Your task to perform on an android device: change alarm snooze length Image 0: 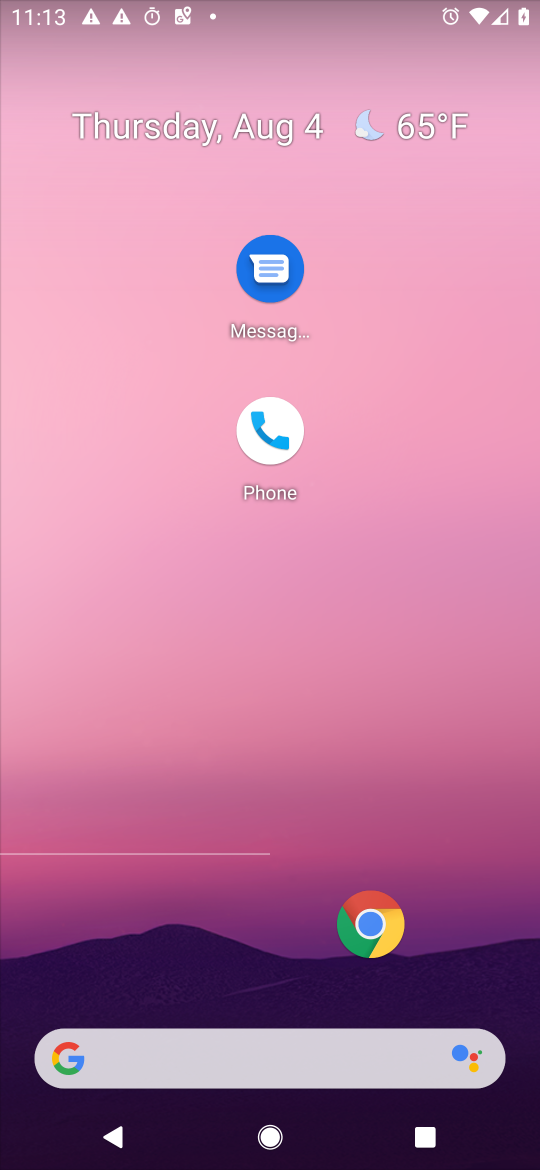
Step 0: drag from (302, 730) to (385, 219)
Your task to perform on an android device: change alarm snooze length Image 1: 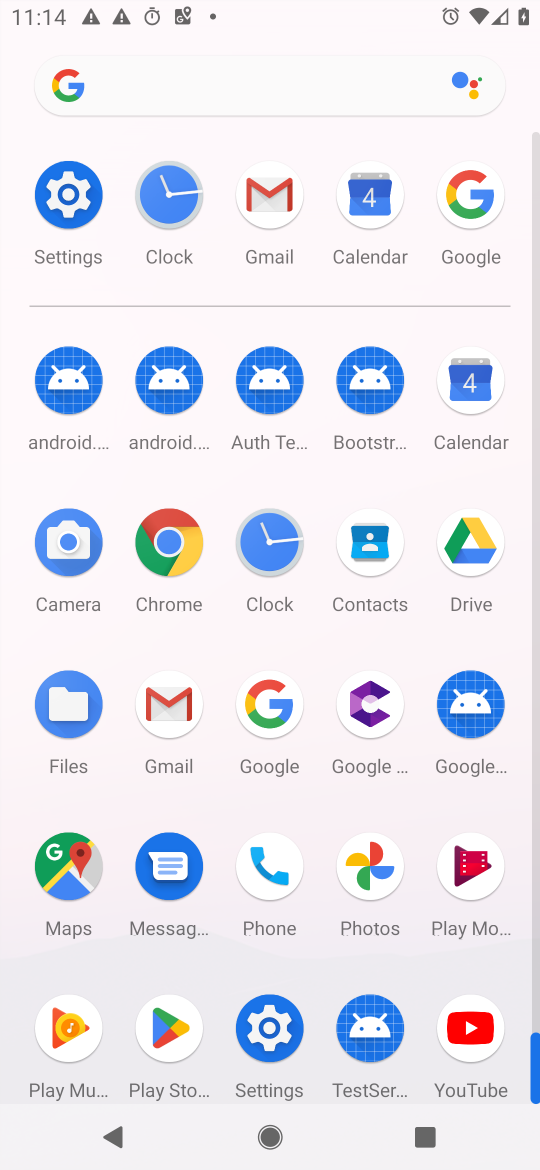
Step 1: click (269, 545)
Your task to perform on an android device: change alarm snooze length Image 2: 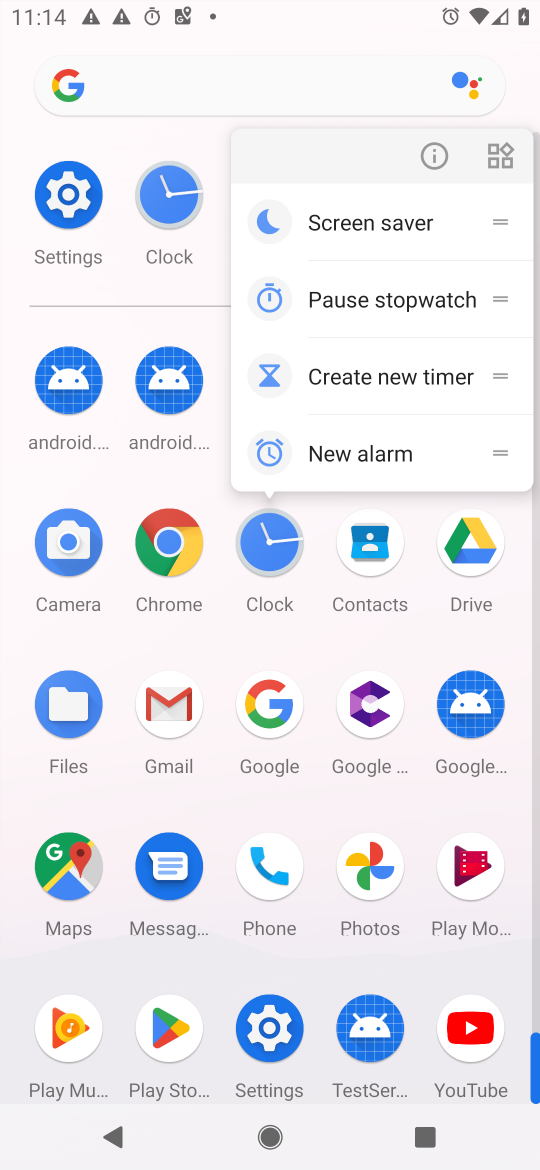
Step 2: click (438, 141)
Your task to perform on an android device: change alarm snooze length Image 3: 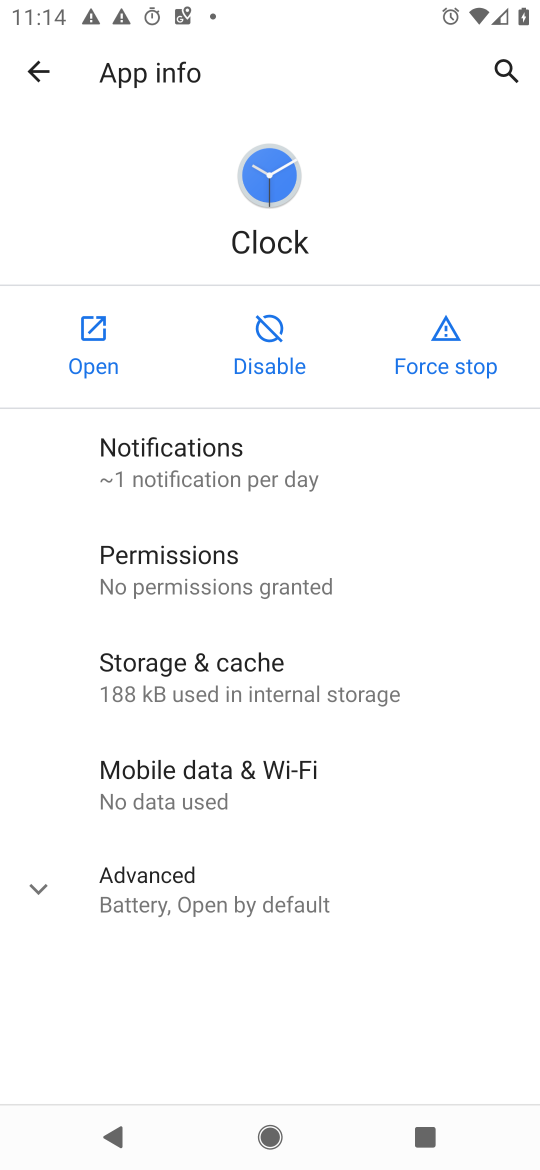
Step 3: click (81, 332)
Your task to perform on an android device: change alarm snooze length Image 4: 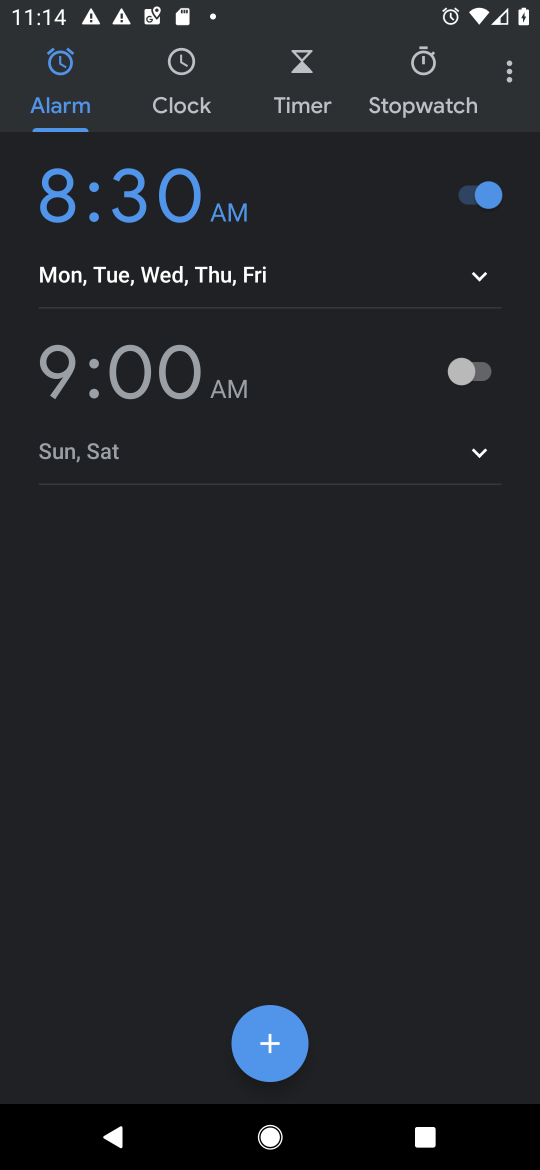
Step 4: drag from (506, 68) to (380, 153)
Your task to perform on an android device: change alarm snooze length Image 5: 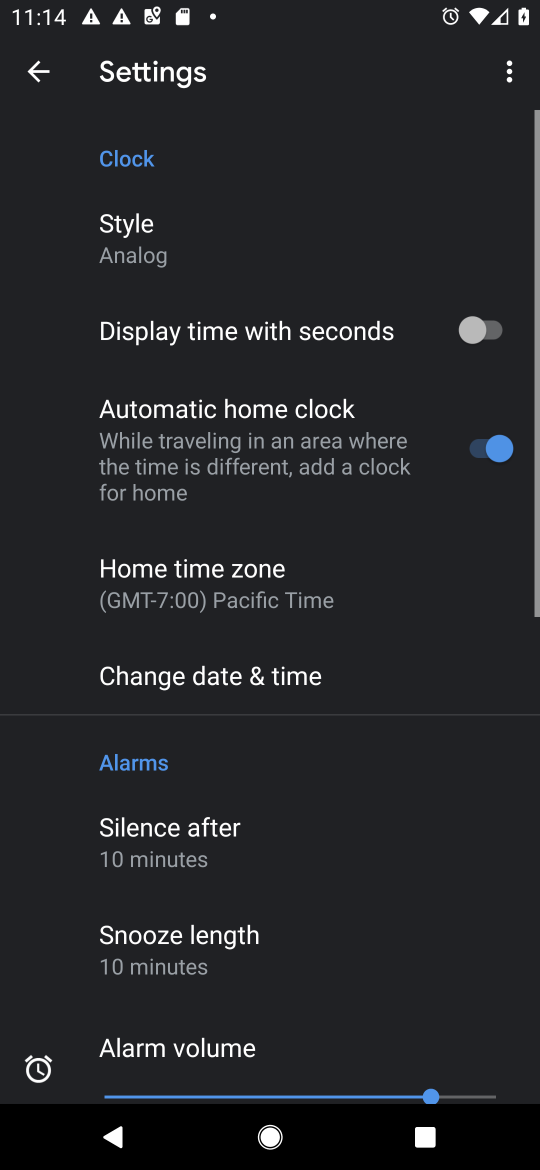
Step 5: drag from (217, 870) to (334, 317)
Your task to perform on an android device: change alarm snooze length Image 6: 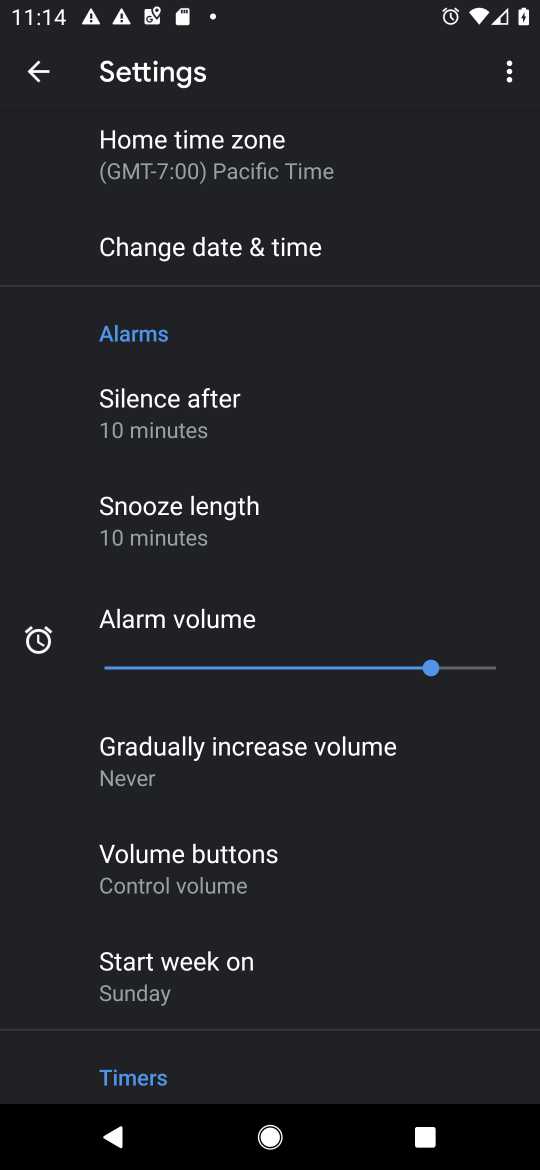
Step 6: click (209, 513)
Your task to perform on an android device: change alarm snooze length Image 7: 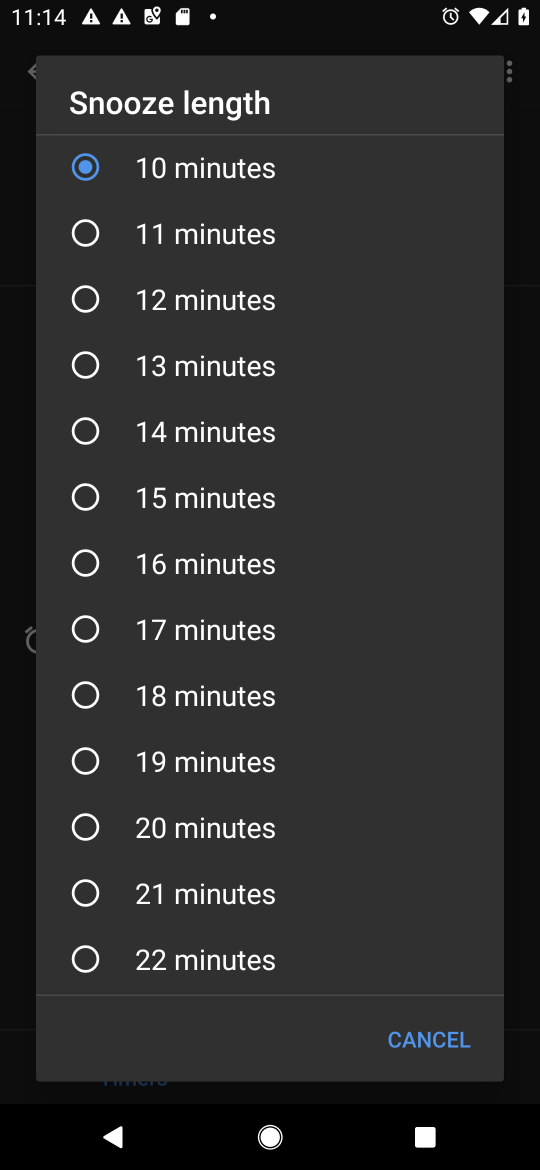
Step 7: drag from (191, 837) to (238, 264)
Your task to perform on an android device: change alarm snooze length Image 8: 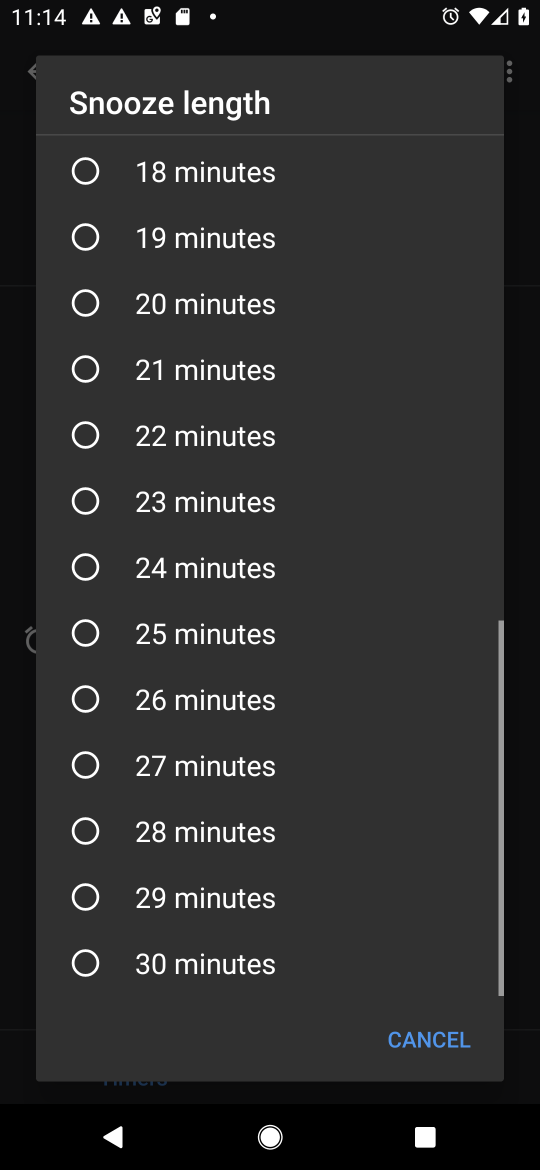
Step 8: drag from (240, 258) to (259, 1157)
Your task to perform on an android device: change alarm snooze length Image 9: 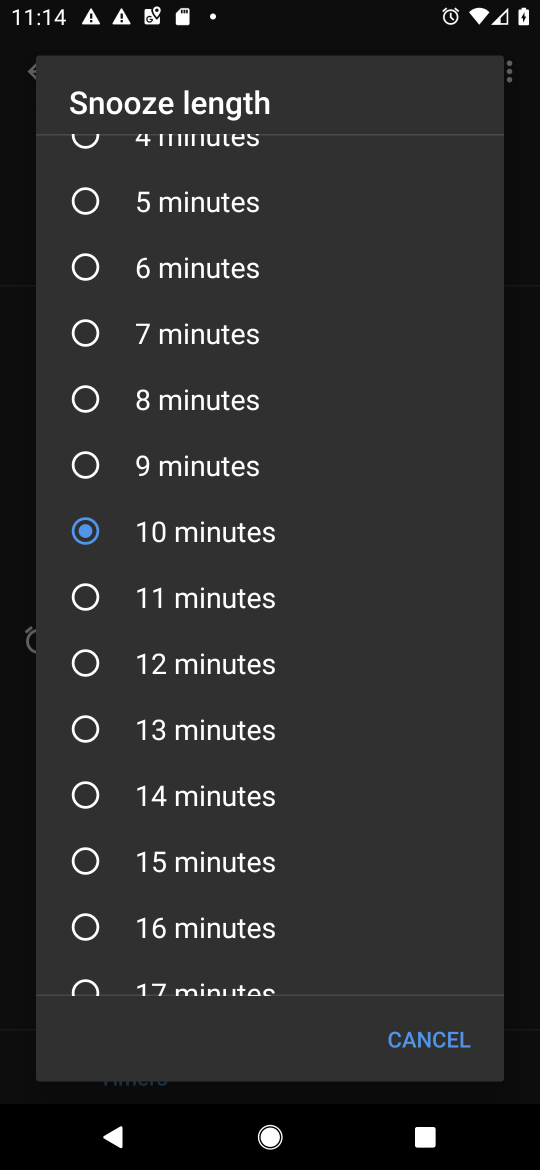
Step 9: drag from (245, 401) to (259, 1161)
Your task to perform on an android device: change alarm snooze length Image 10: 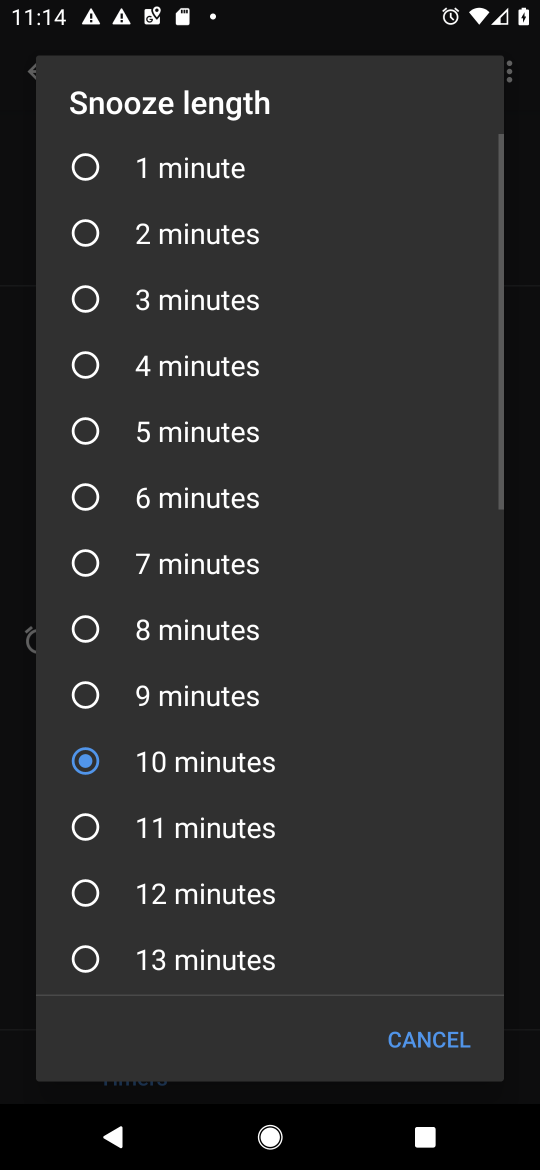
Step 10: click (97, 161)
Your task to perform on an android device: change alarm snooze length Image 11: 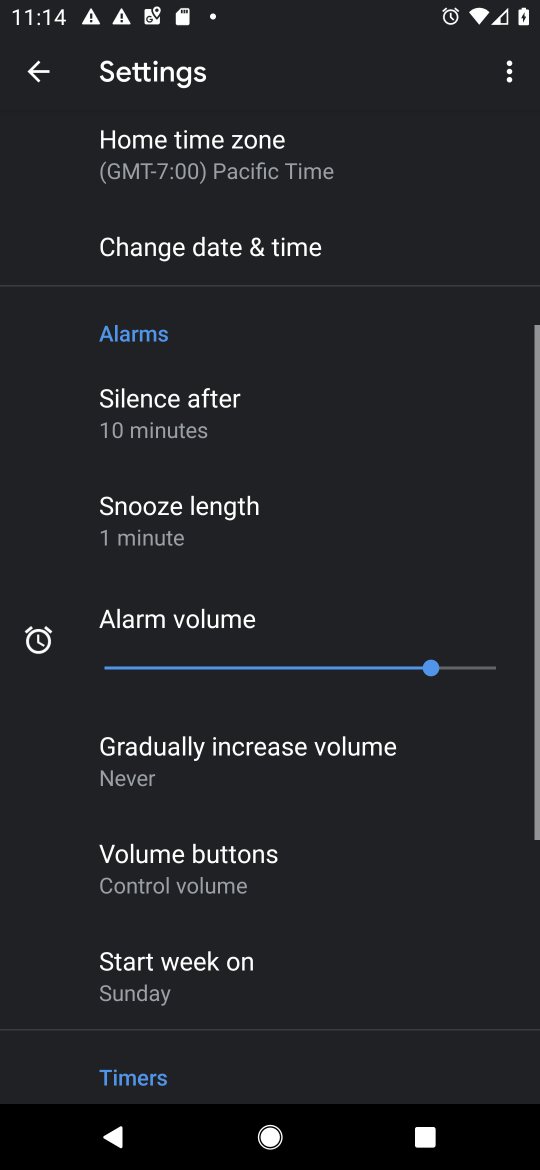
Step 11: task complete